Your task to perform on an android device: Show me recent news Image 0: 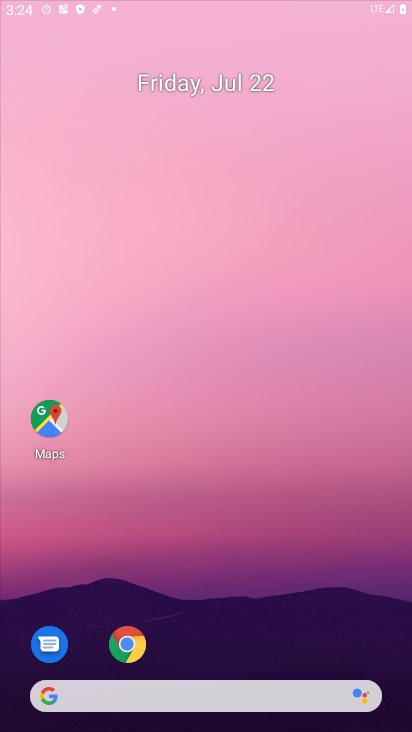
Step 0: press home button
Your task to perform on an android device: Show me recent news Image 1: 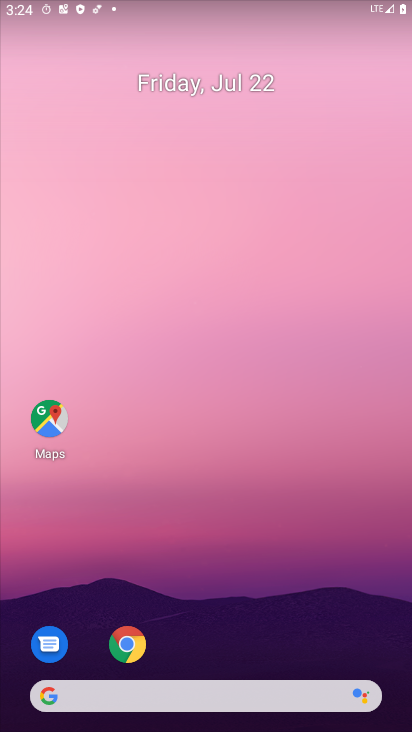
Step 1: click (50, 697)
Your task to perform on an android device: Show me recent news Image 2: 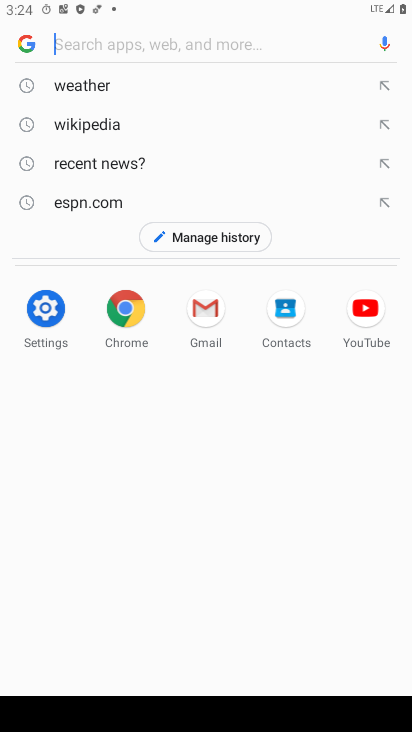
Step 2: click (102, 166)
Your task to perform on an android device: Show me recent news Image 3: 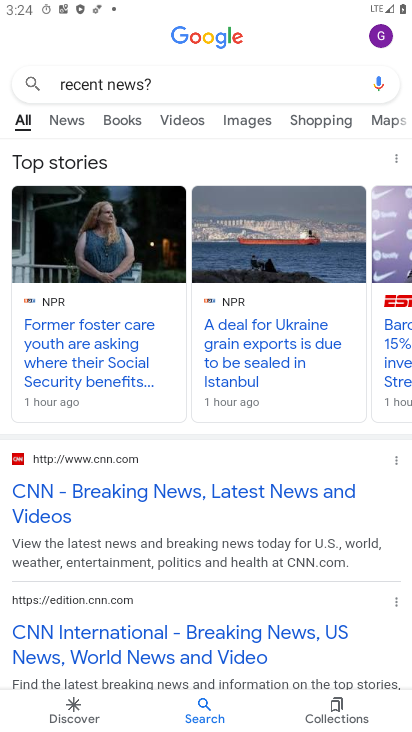
Step 3: task complete